Your task to perform on an android device: Show me the alarms in the clock app Image 0: 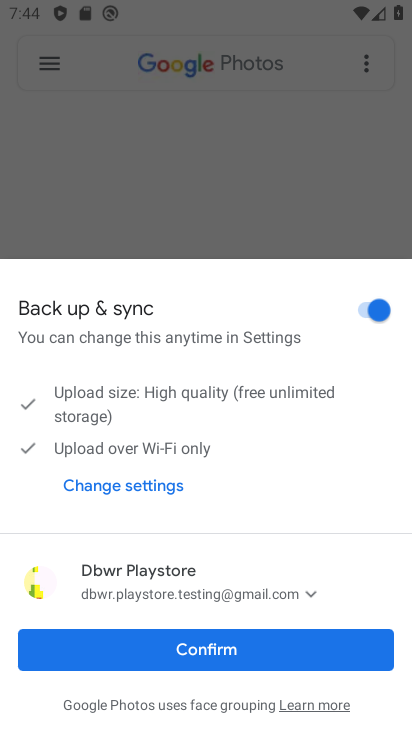
Step 0: press home button
Your task to perform on an android device: Show me the alarms in the clock app Image 1: 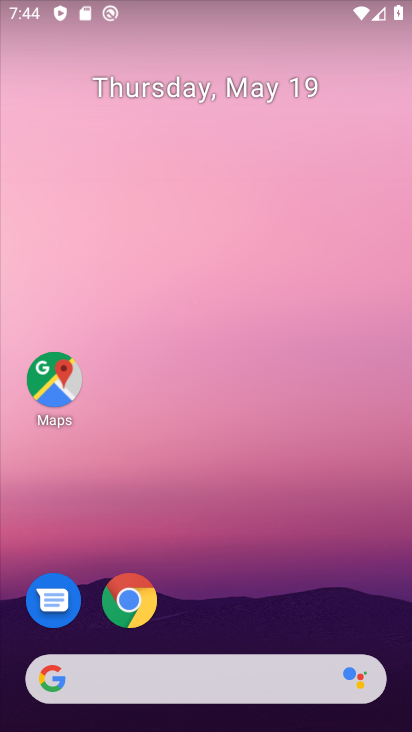
Step 1: drag from (388, 622) to (374, 287)
Your task to perform on an android device: Show me the alarms in the clock app Image 2: 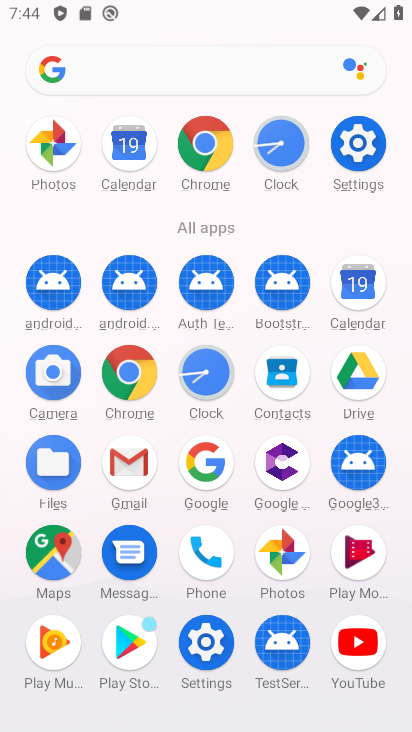
Step 2: click (209, 374)
Your task to perform on an android device: Show me the alarms in the clock app Image 3: 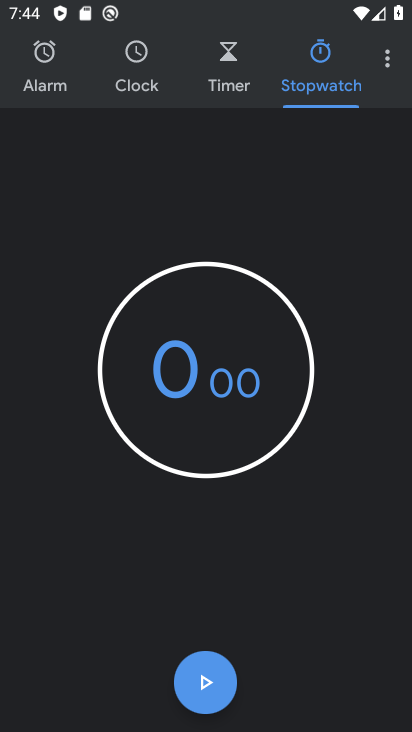
Step 3: click (44, 78)
Your task to perform on an android device: Show me the alarms in the clock app Image 4: 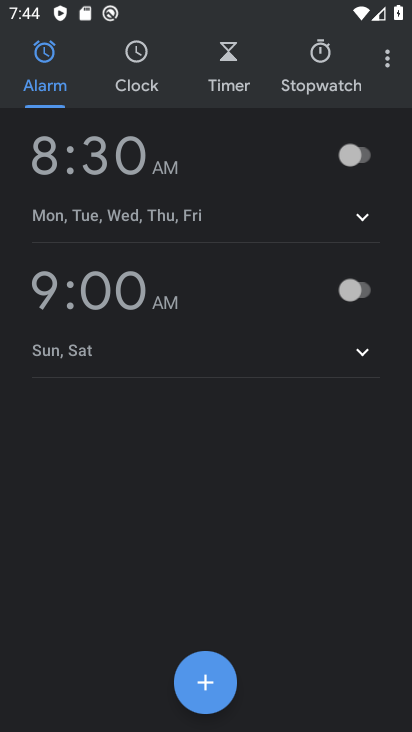
Step 4: task complete